Your task to perform on an android device: add a contact in the contacts app Image 0: 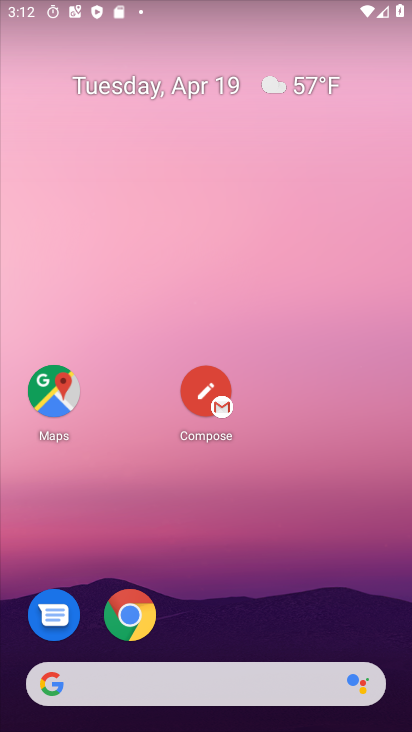
Step 0: drag from (308, 639) to (252, 7)
Your task to perform on an android device: add a contact in the contacts app Image 1: 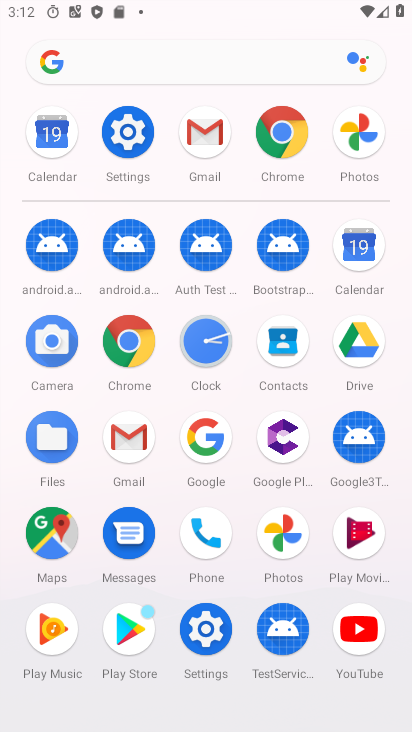
Step 1: click (279, 362)
Your task to perform on an android device: add a contact in the contacts app Image 2: 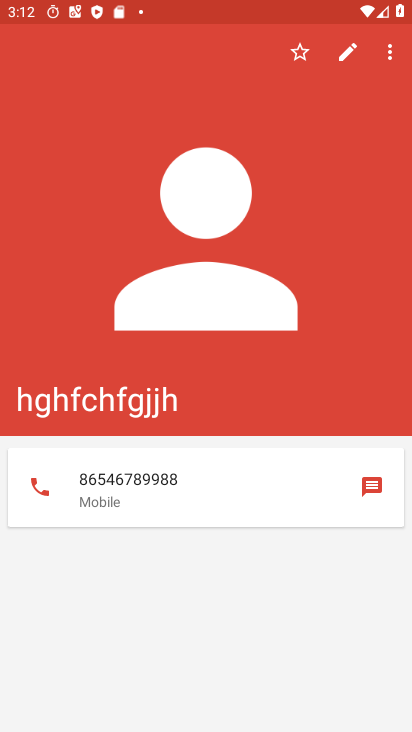
Step 2: click (387, 46)
Your task to perform on an android device: add a contact in the contacts app Image 3: 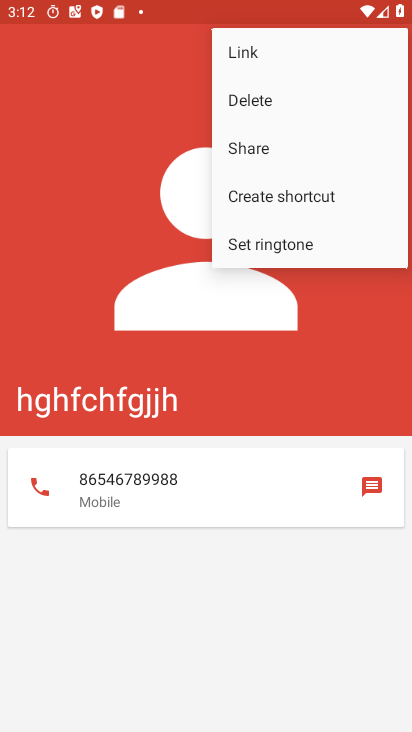
Step 3: click (322, 547)
Your task to perform on an android device: add a contact in the contacts app Image 4: 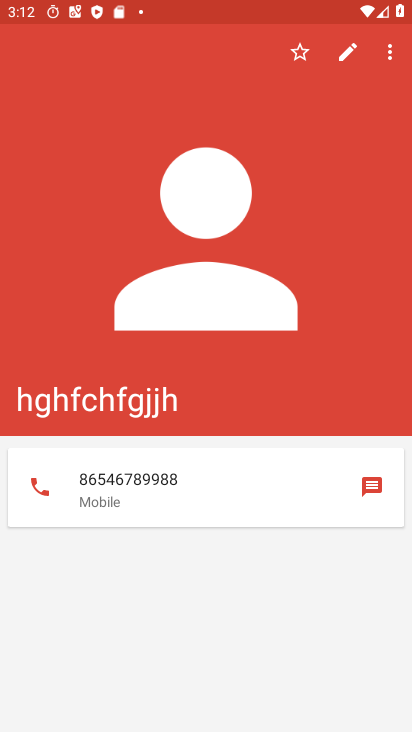
Step 4: press back button
Your task to perform on an android device: add a contact in the contacts app Image 5: 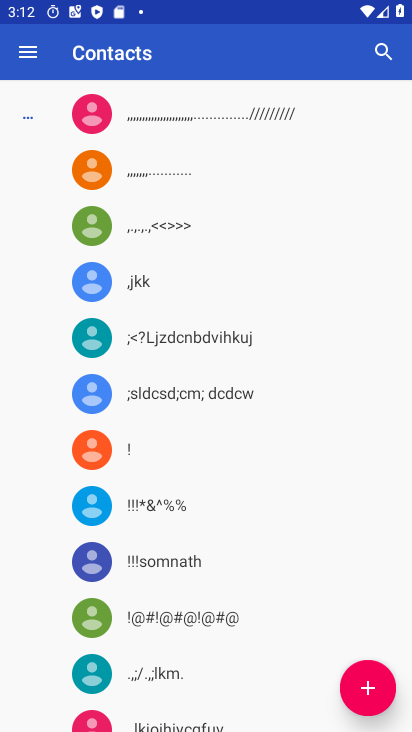
Step 5: click (380, 695)
Your task to perform on an android device: add a contact in the contacts app Image 6: 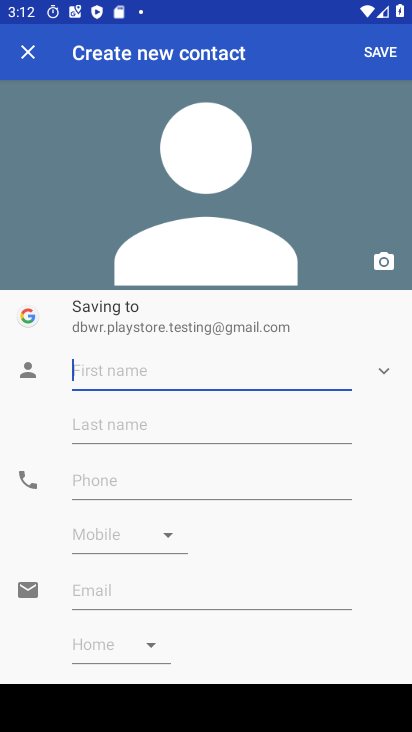
Step 6: type "fdfdgfgfgf"
Your task to perform on an android device: add a contact in the contacts app Image 7: 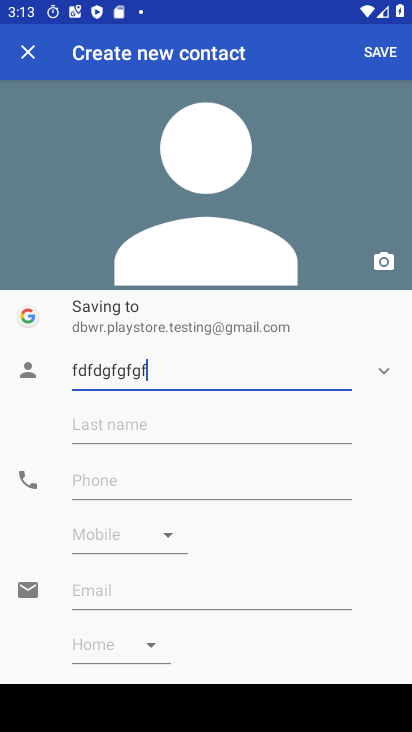
Step 7: click (182, 474)
Your task to perform on an android device: add a contact in the contacts app Image 8: 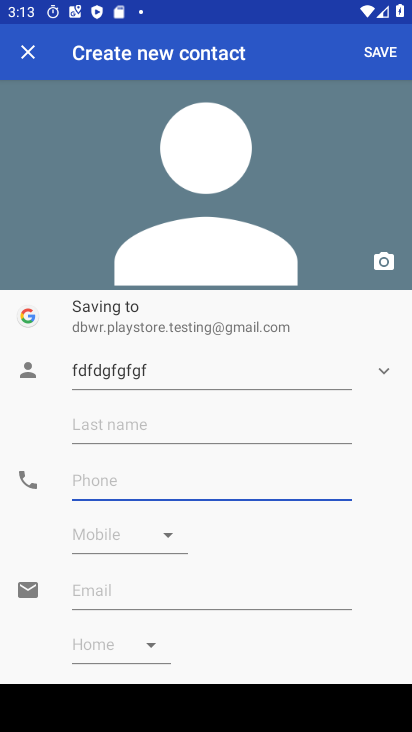
Step 8: type "46456457766"
Your task to perform on an android device: add a contact in the contacts app Image 9: 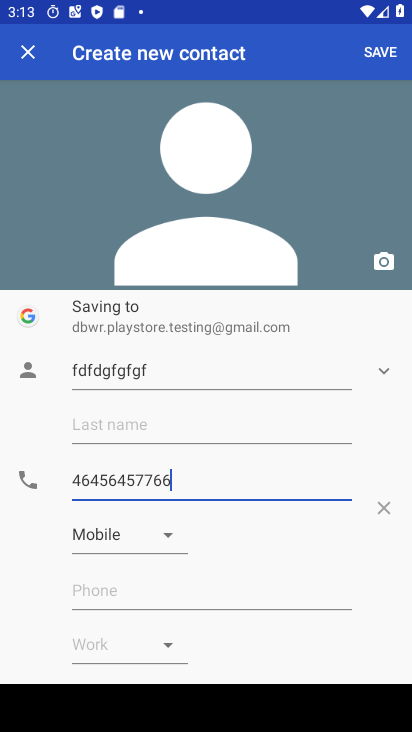
Step 9: click (378, 55)
Your task to perform on an android device: add a contact in the contacts app Image 10: 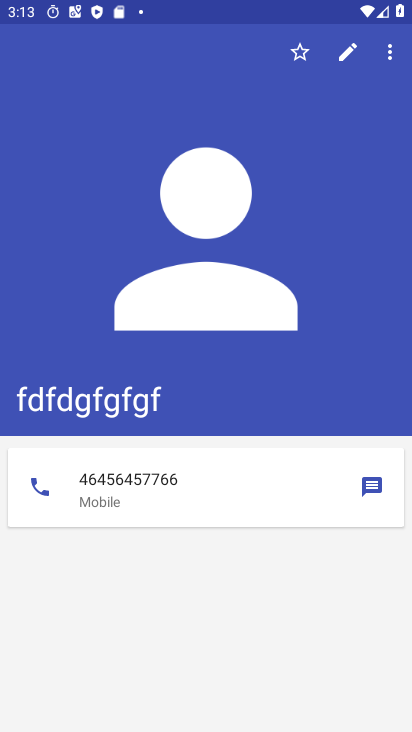
Step 10: task complete